Your task to perform on an android device: Open Reddit.com Image 0: 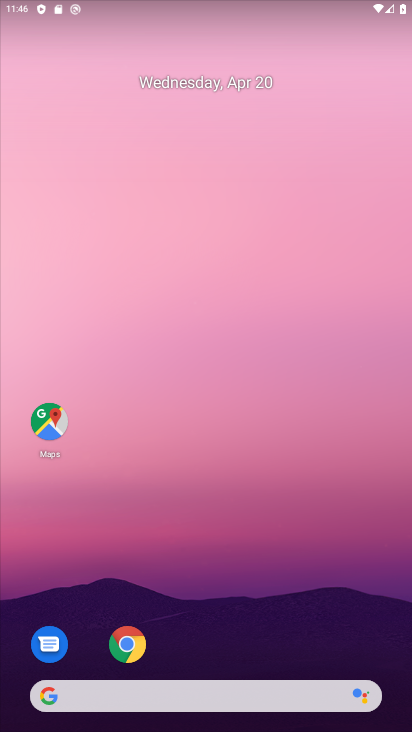
Step 0: click (125, 643)
Your task to perform on an android device: Open Reddit.com Image 1: 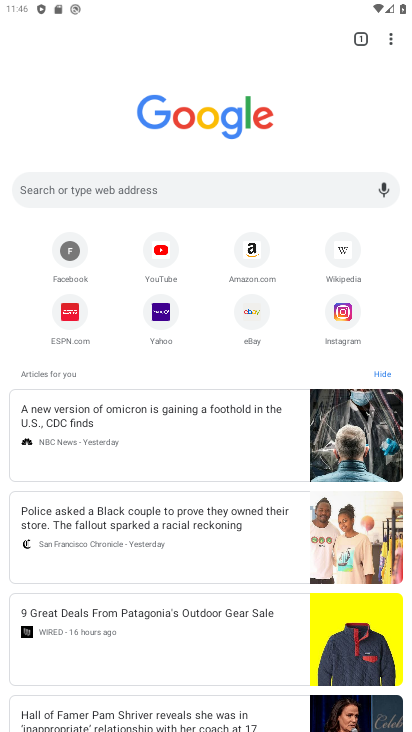
Step 1: click (95, 180)
Your task to perform on an android device: Open Reddit.com Image 2: 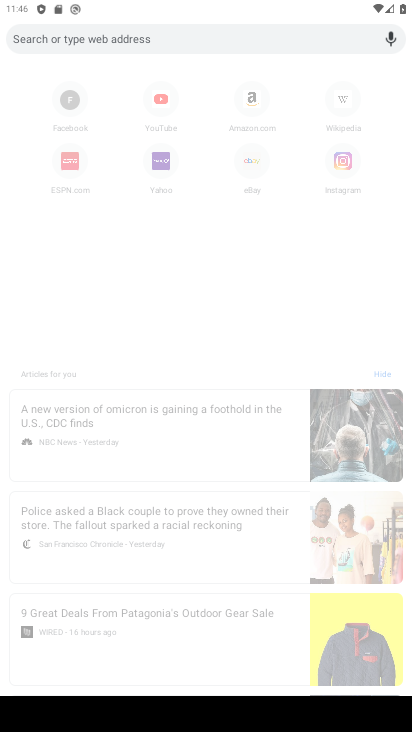
Step 2: type "reddit.com"
Your task to perform on an android device: Open Reddit.com Image 3: 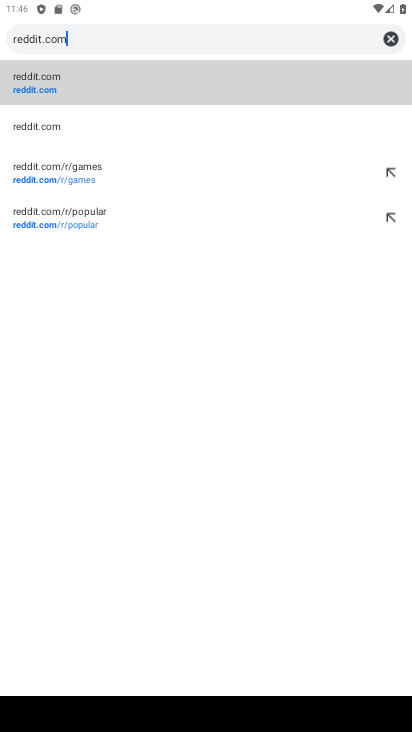
Step 3: click (39, 82)
Your task to perform on an android device: Open Reddit.com Image 4: 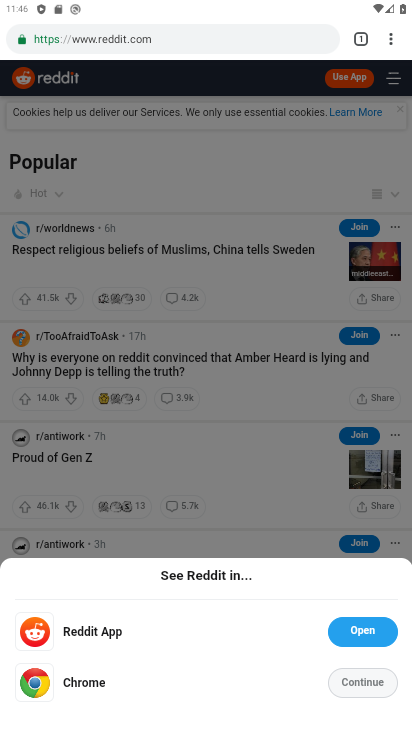
Step 4: task complete